Your task to perform on an android device: Go to Wikipedia Image 0: 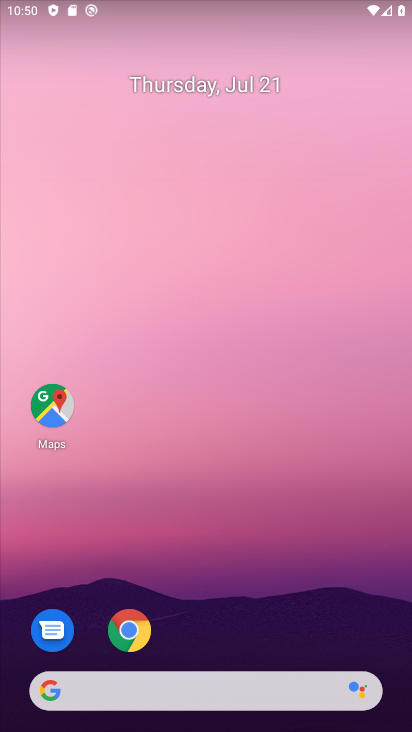
Step 0: click (123, 624)
Your task to perform on an android device: Go to Wikipedia Image 1: 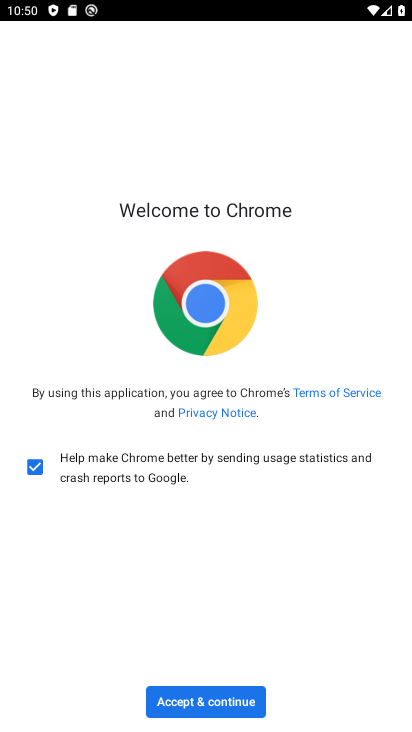
Step 1: click (219, 703)
Your task to perform on an android device: Go to Wikipedia Image 2: 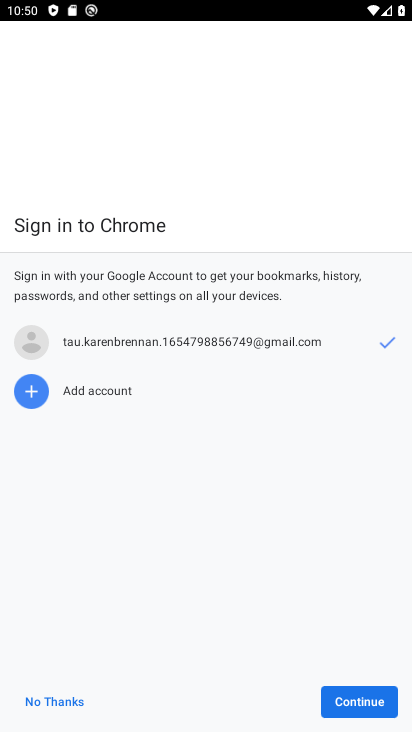
Step 2: click (354, 701)
Your task to perform on an android device: Go to Wikipedia Image 3: 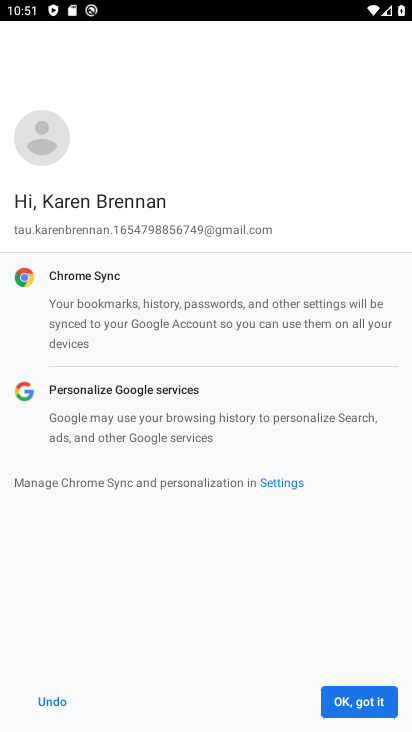
Step 3: click (359, 694)
Your task to perform on an android device: Go to Wikipedia Image 4: 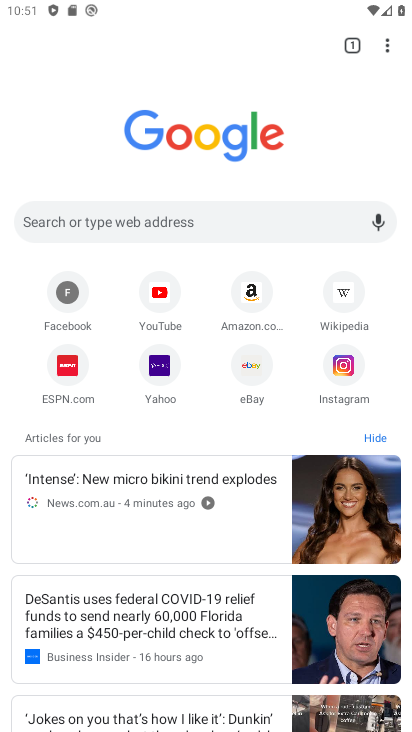
Step 4: click (343, 299)
Your task to perform on an android device: Go to Wikipedia Image 5: 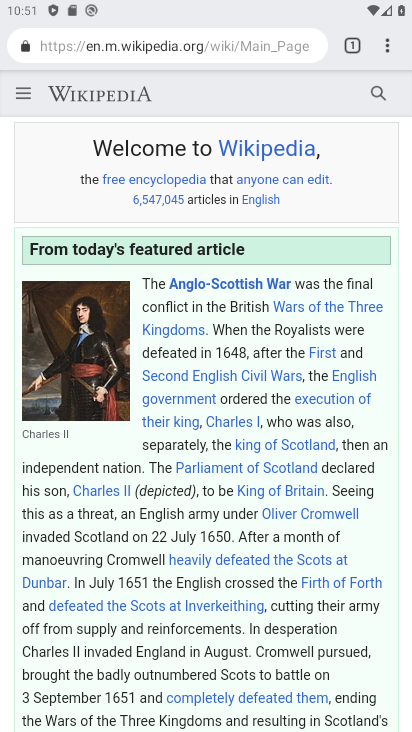
Step 5: task complete